Your task to perform on an android device: Open Google Chrome and open the bookmarks view Image 0: 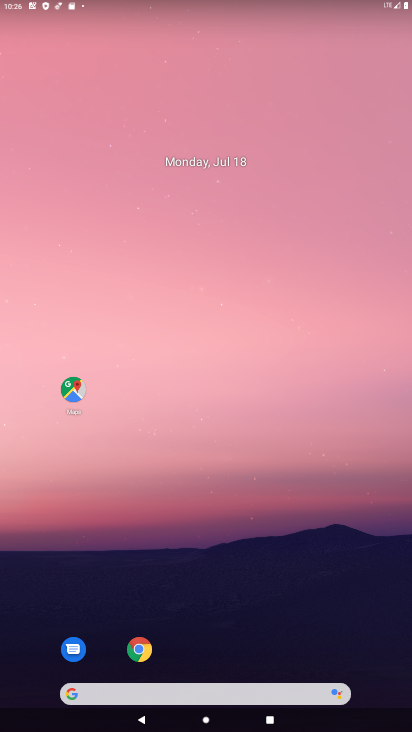
Step 0: click (143, 653)
Your task to perform on an android device: Open Google Chrome and open the bookmarks view Image 1: 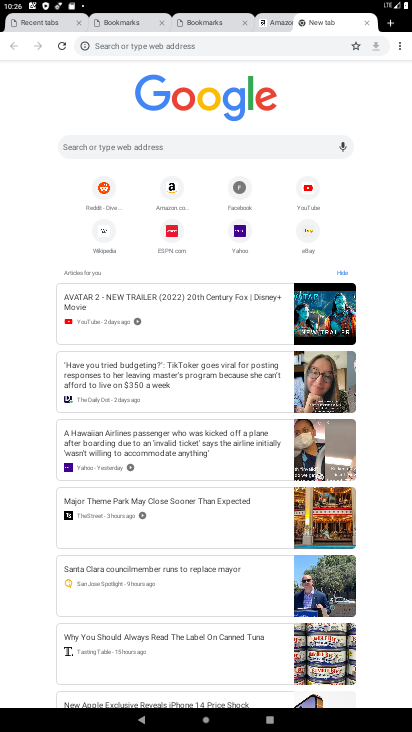
Step 1: click (397, 42)
Your task to perform on an android device: Open Google Chrome and open the bookmarks view Image 2: 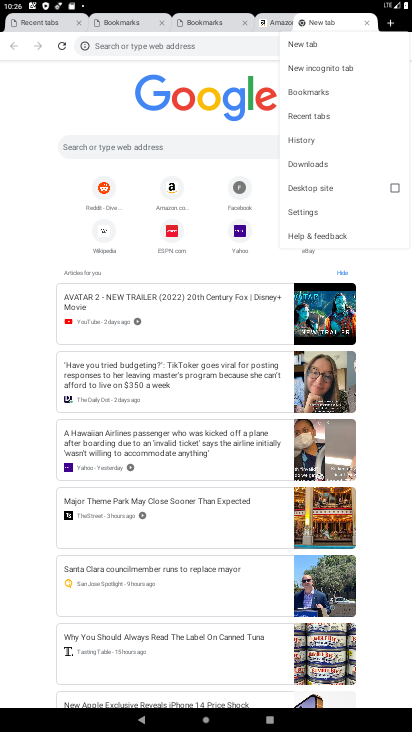
Step 2: click (338, 98)
Your task to perform on an android device: Open Google Chrome and open the bookmarks view Image 3: 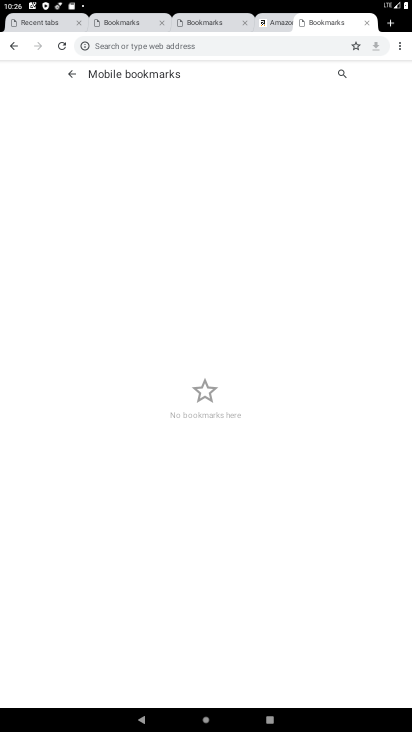
Step 3: task complete